Your task to perform on an android device: turn on notifications settings in the gmail app Image 0: 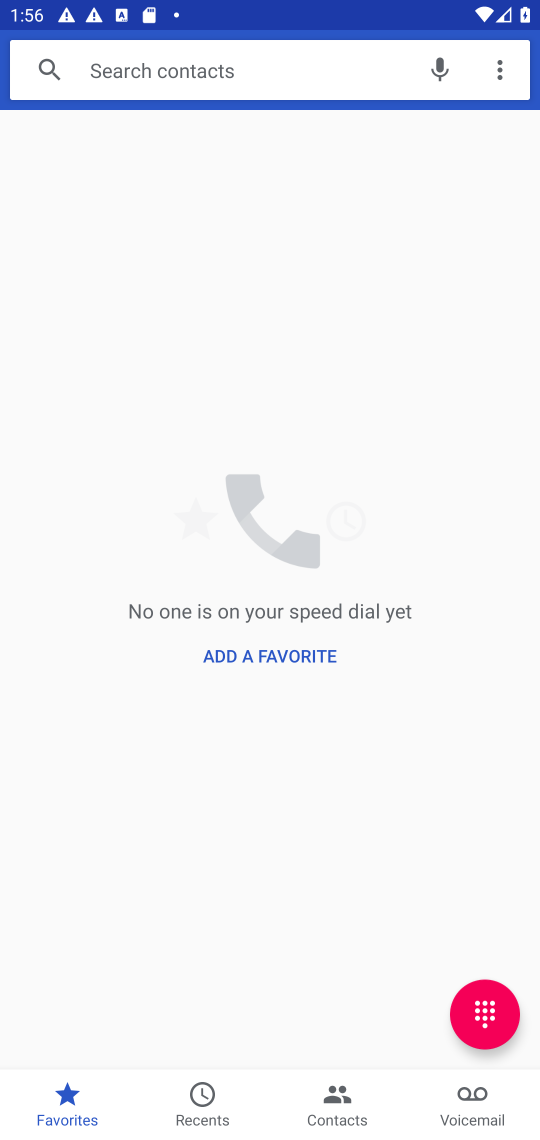
Step 0: press home button
Your task to perform on an android device: turn on notifications settings in the gmail app Image 1: 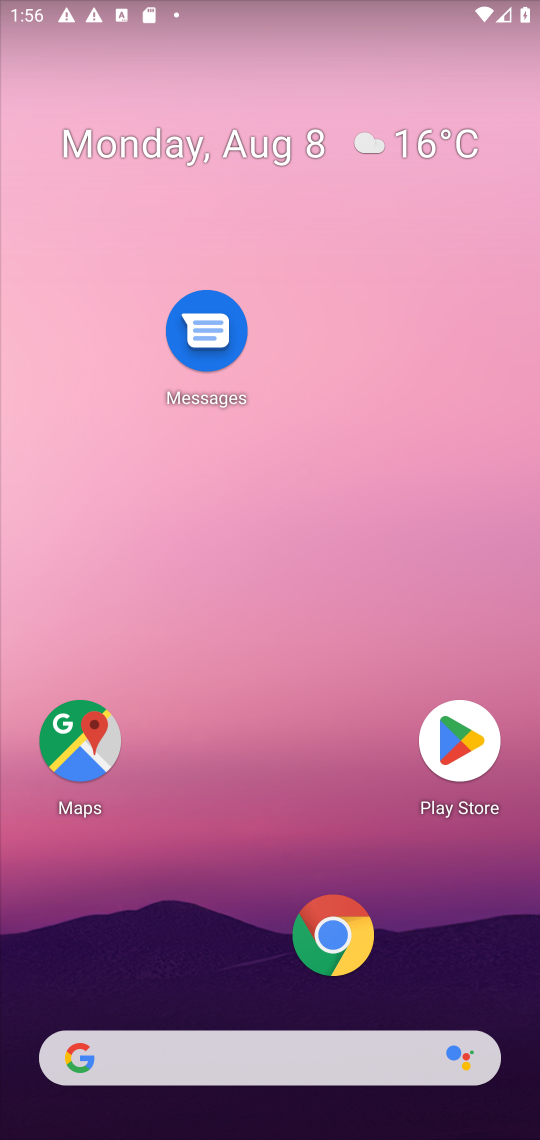
Step 1: drag from (303, 1047) to (303, 448)
Your task to perform on an android device: turn on notifications settings in the gmail app Image 2: 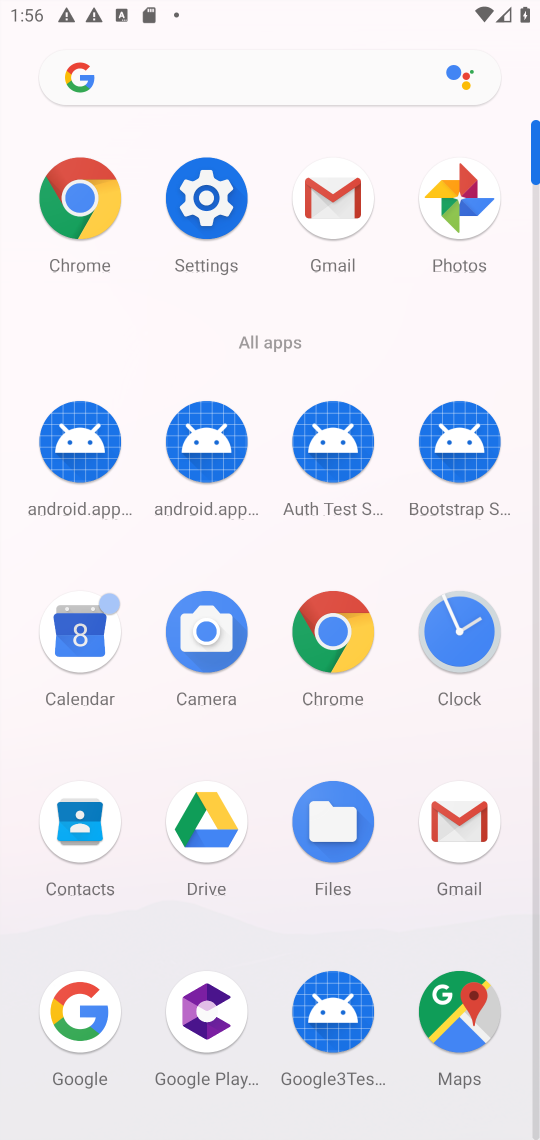
Step 2: click (454, 831)
Your task to perform on an android device: turn on notifications settings in the gmail app Image 3: 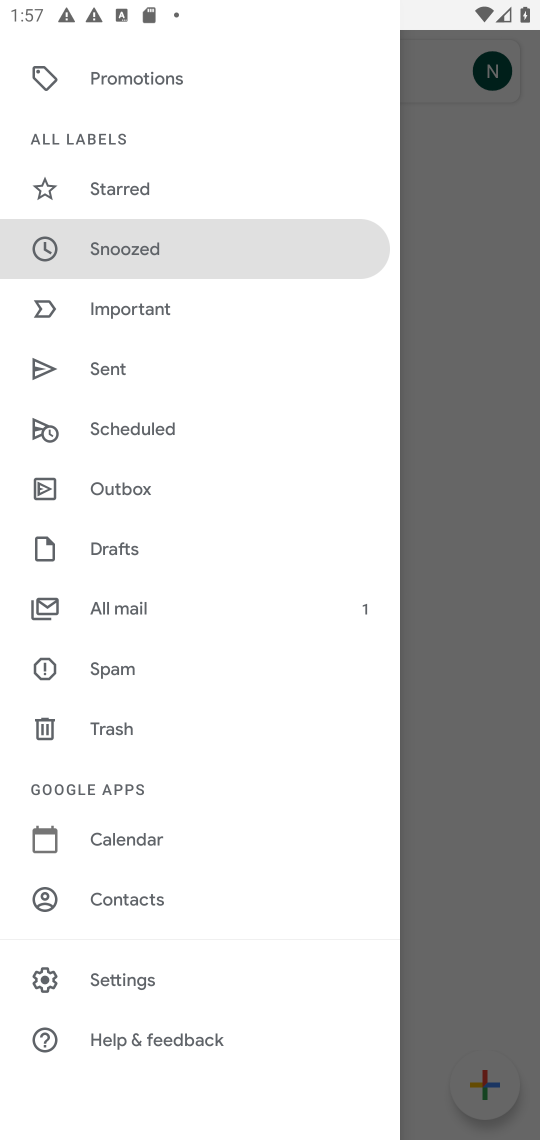
Step 3: click (173, 985)
Your task to perform on an android device: turn on notifications settings in the gmail app Image 4: 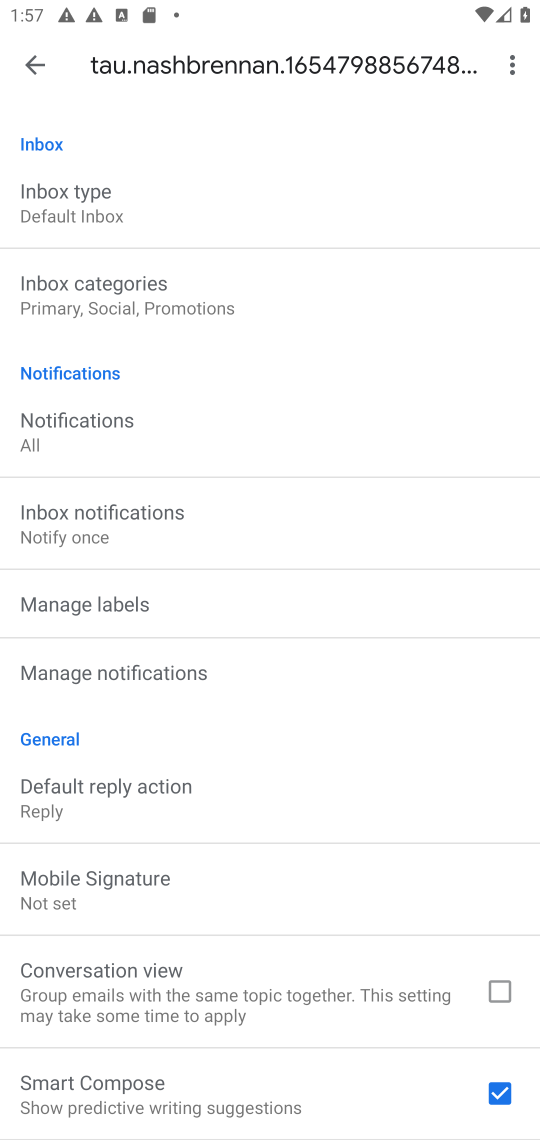
Step 4: click (183, 668)
Your task to perform on an android device: turn on notifications settings in the gmail app Image 5: 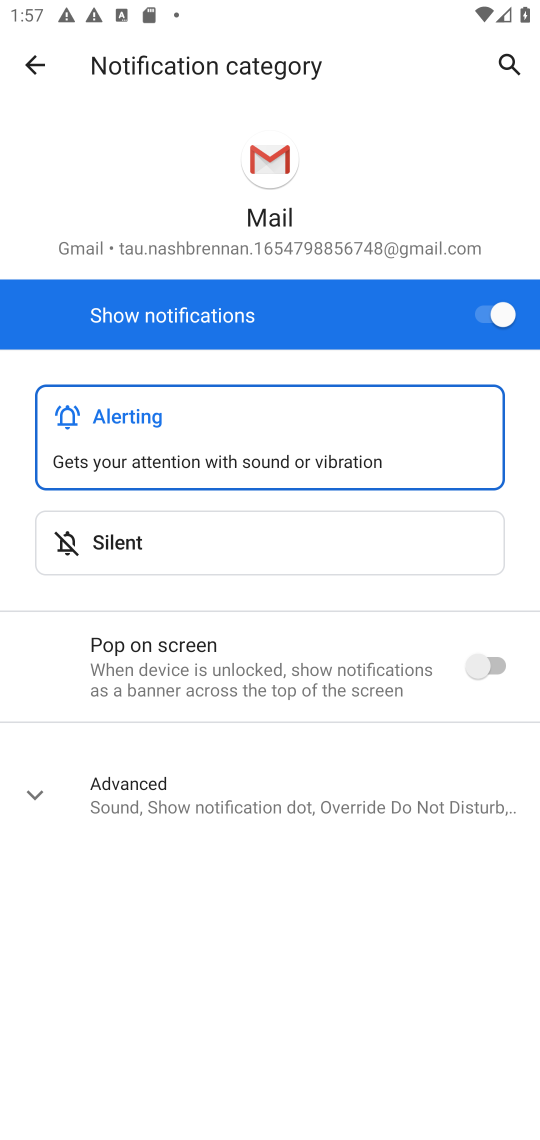
Step 5: click (493, 302)
Your task to perform on an android device: turn on notifications settings in the gmail app Image 6: 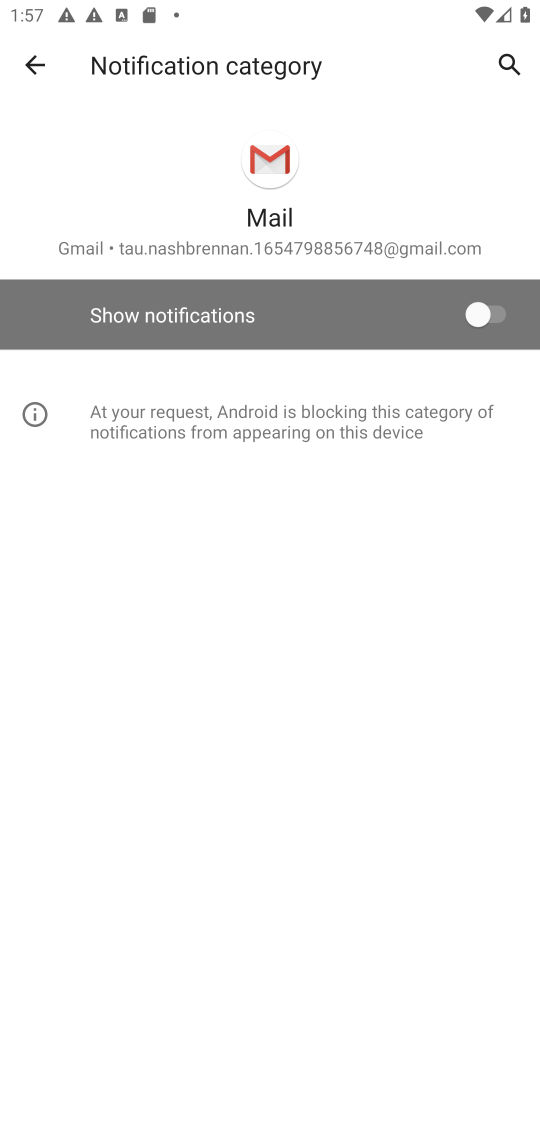
Step 6: task complete